Your task to perform on an android device: add a contact Image 0: 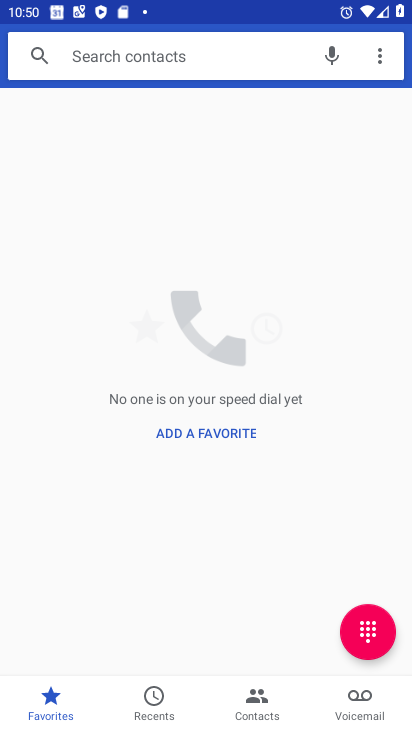
Step 0: press home button
Your task to perform on an android device: add a contact Image 1: 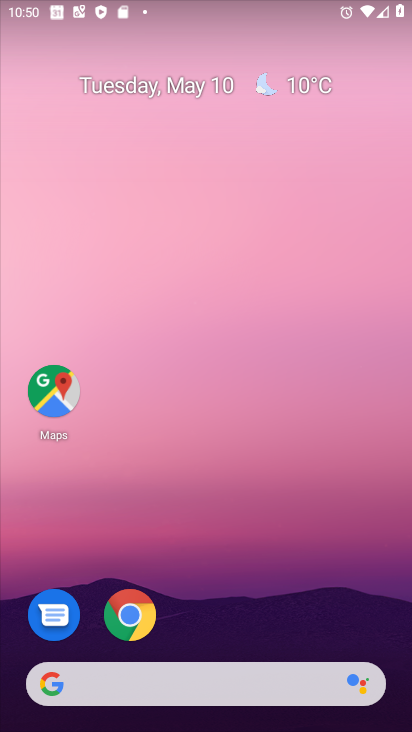
Step 1: drag from (206, 627) to (272, 120)
Your task to perform on an android device: add a contact Image 2: 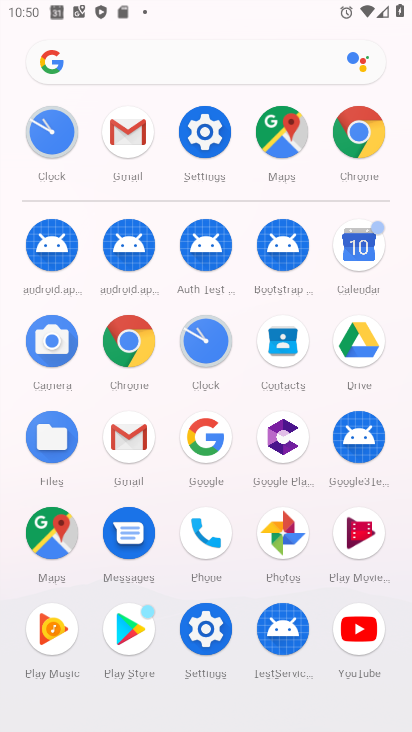
Step 2: click (287, 338)
Your task to perform on an android device: add a contact Image 3: 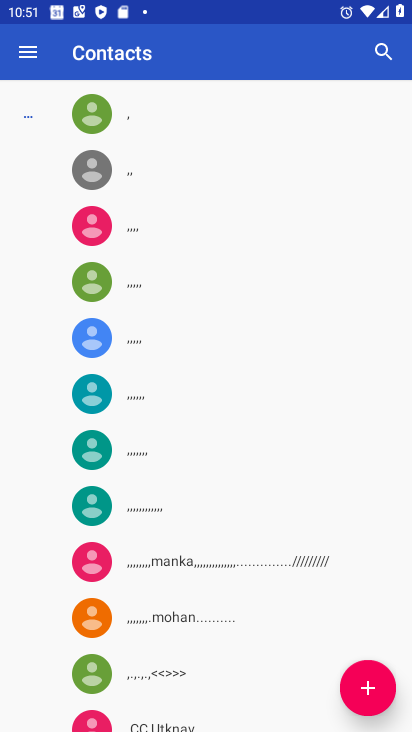
Step 3: click (381, 676)
Your task to perform on an android device: add a contact Image 4: 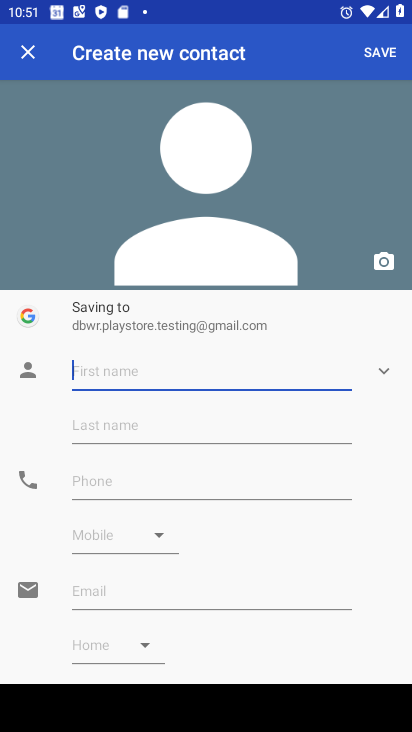
Step 4: type "vvfds"
Your task to perform on an android device: add a contact Image 5: 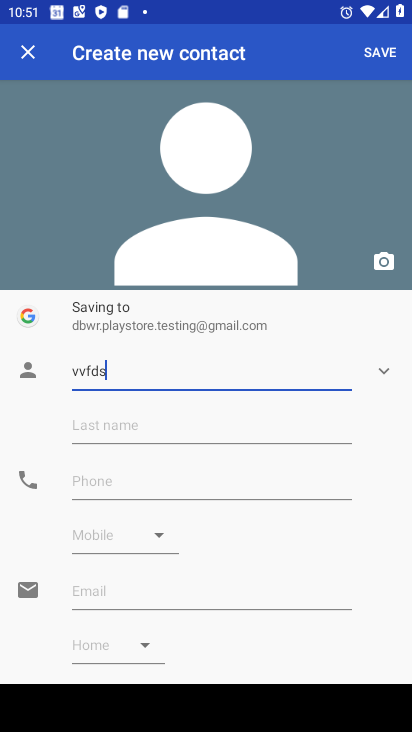
Step 5: click (370, 49)
Your task to perform on an android device: add a contact Image 6: 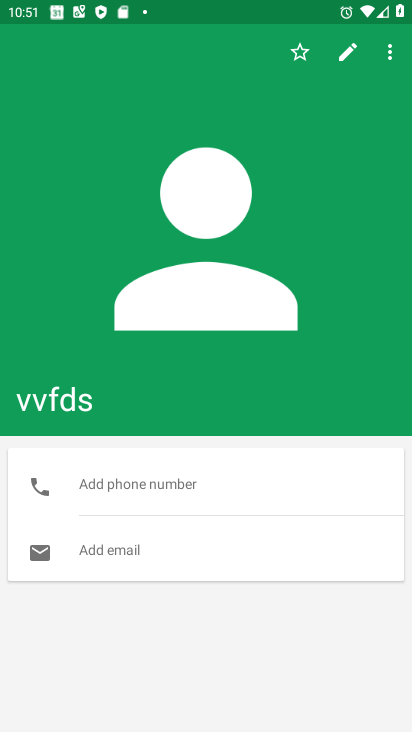
Step 6: task complete